Your task to perform on an android device: uninstall "Fetch Rewards" Image 0: 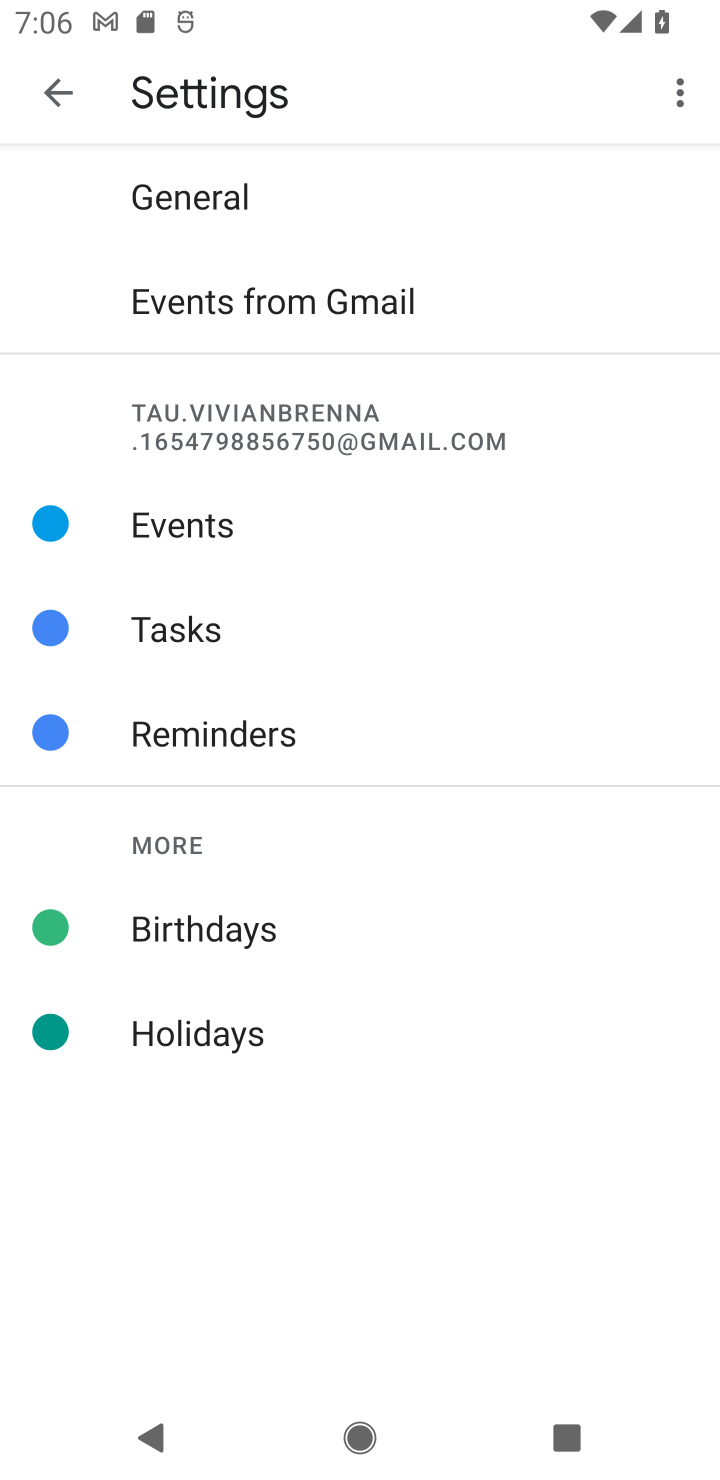
Step 0: press home button
Your task to perform on an android device: uninstall "Fetch Rewards" Image 1: 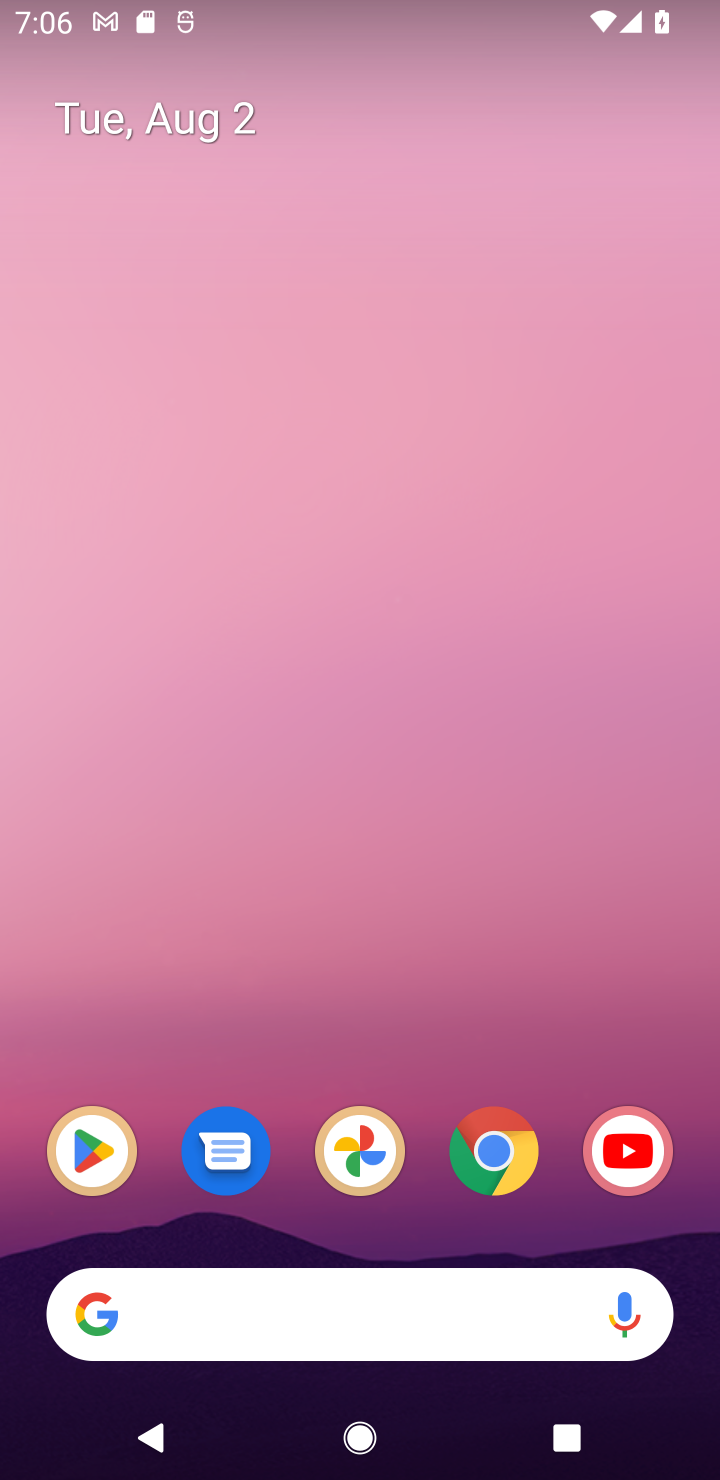
Step 1: click (96, 1150)
Your task to perform on an android device: uninstall "Fetch Rewards" Image 2: 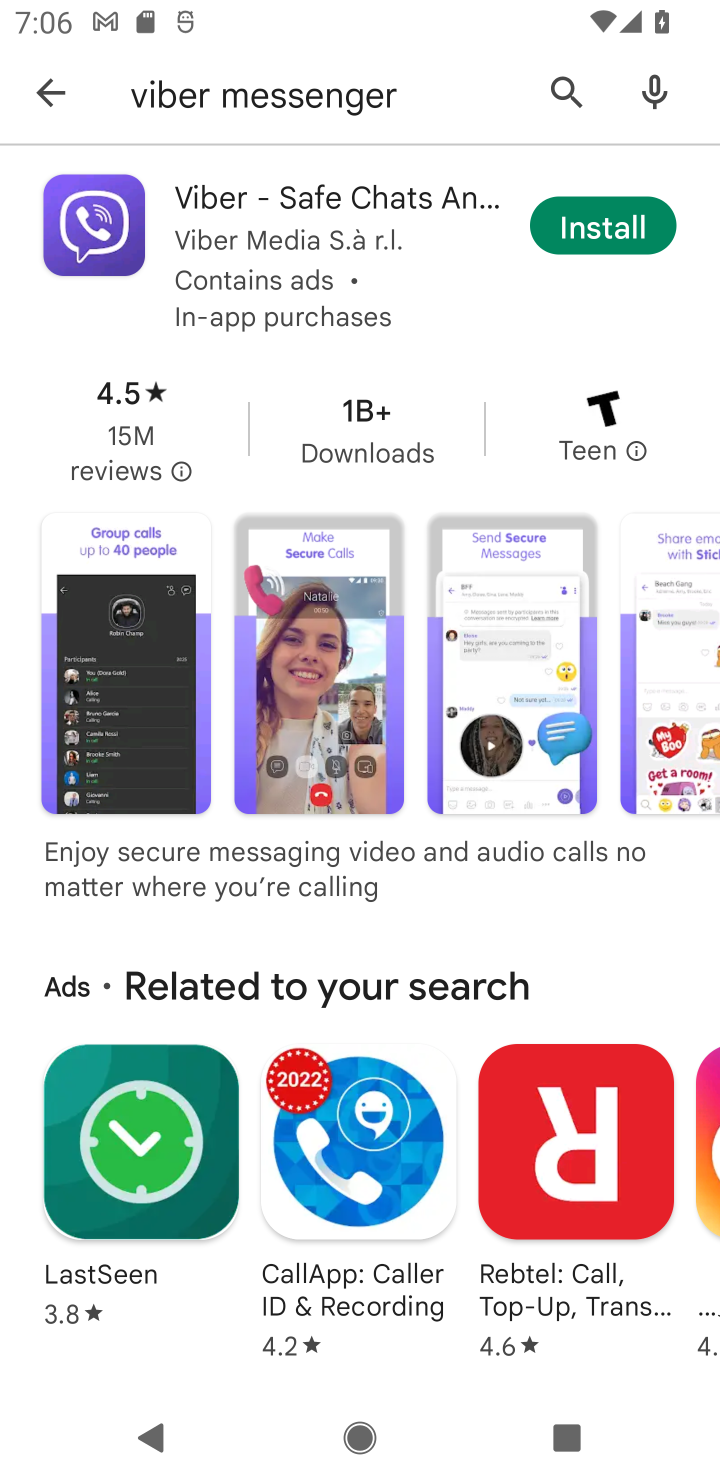
Step 2: click (572, 99)
Your task to perform on an android device: uninstall "Fetch Rewards" Image 3: 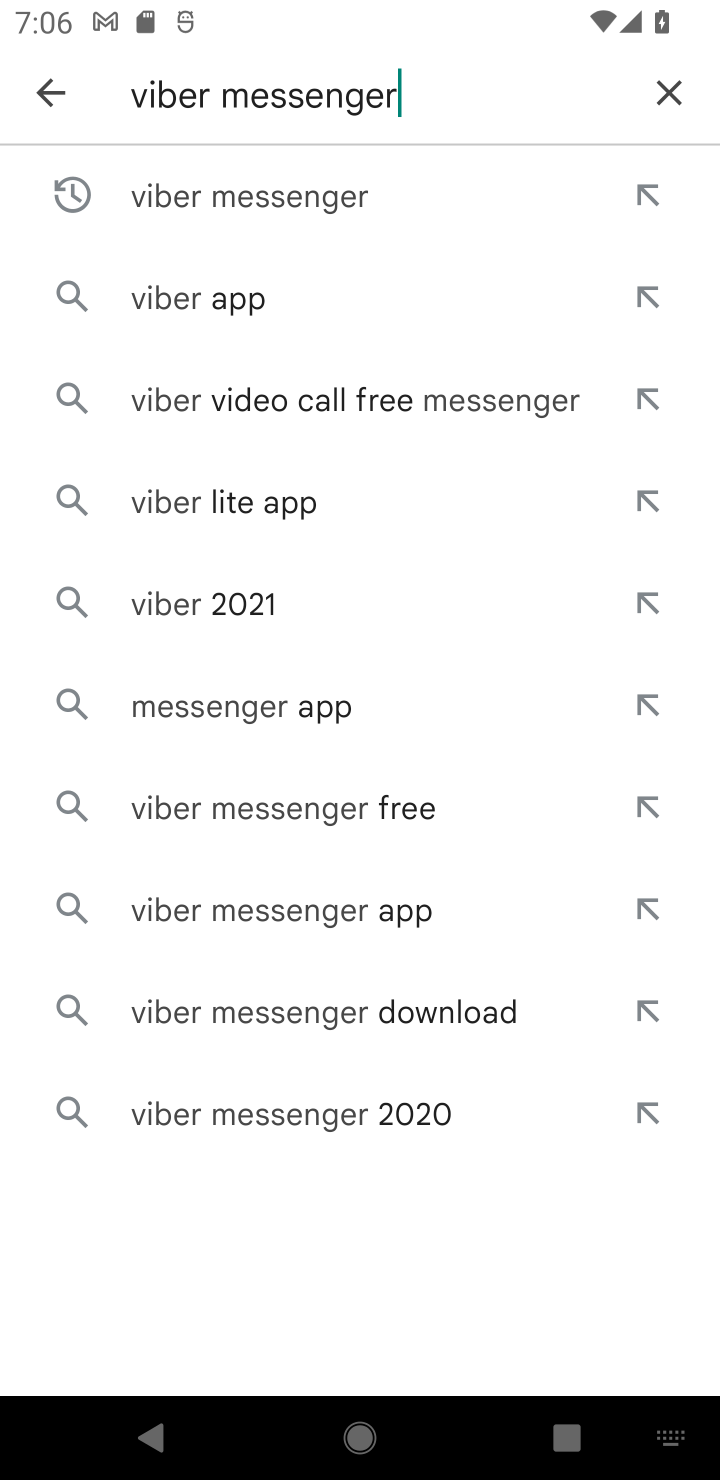
Step 3: click (654, 93)
Your task to perform on an android device: uninstall "Fetch Rewards" Image 4: 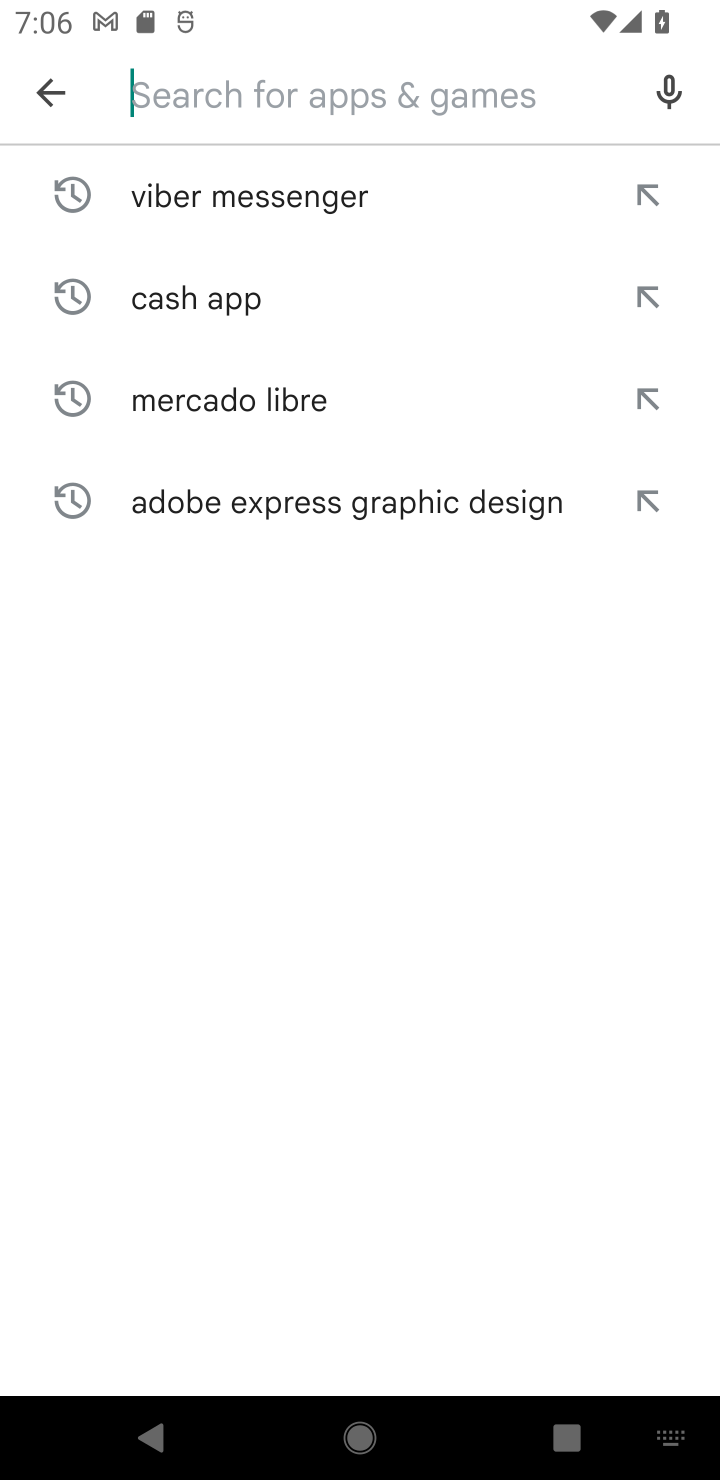
Step 4: type "Fetch Rewards"
Your task to perform on an android device: uninstall "Fetch Rewards" Image 5: 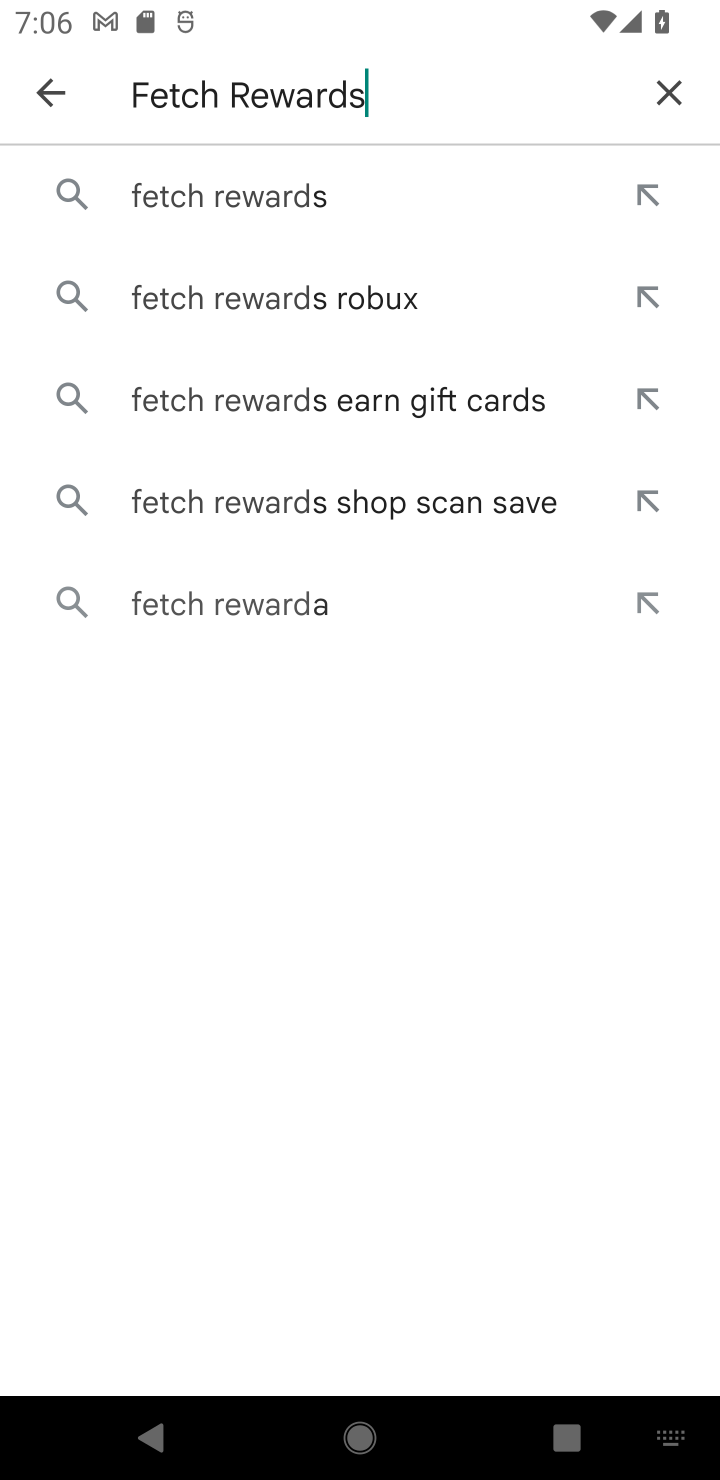
Step 5: type ""
Your task to perform on an android device: uninstall "Fetch Rewards" Image 6: 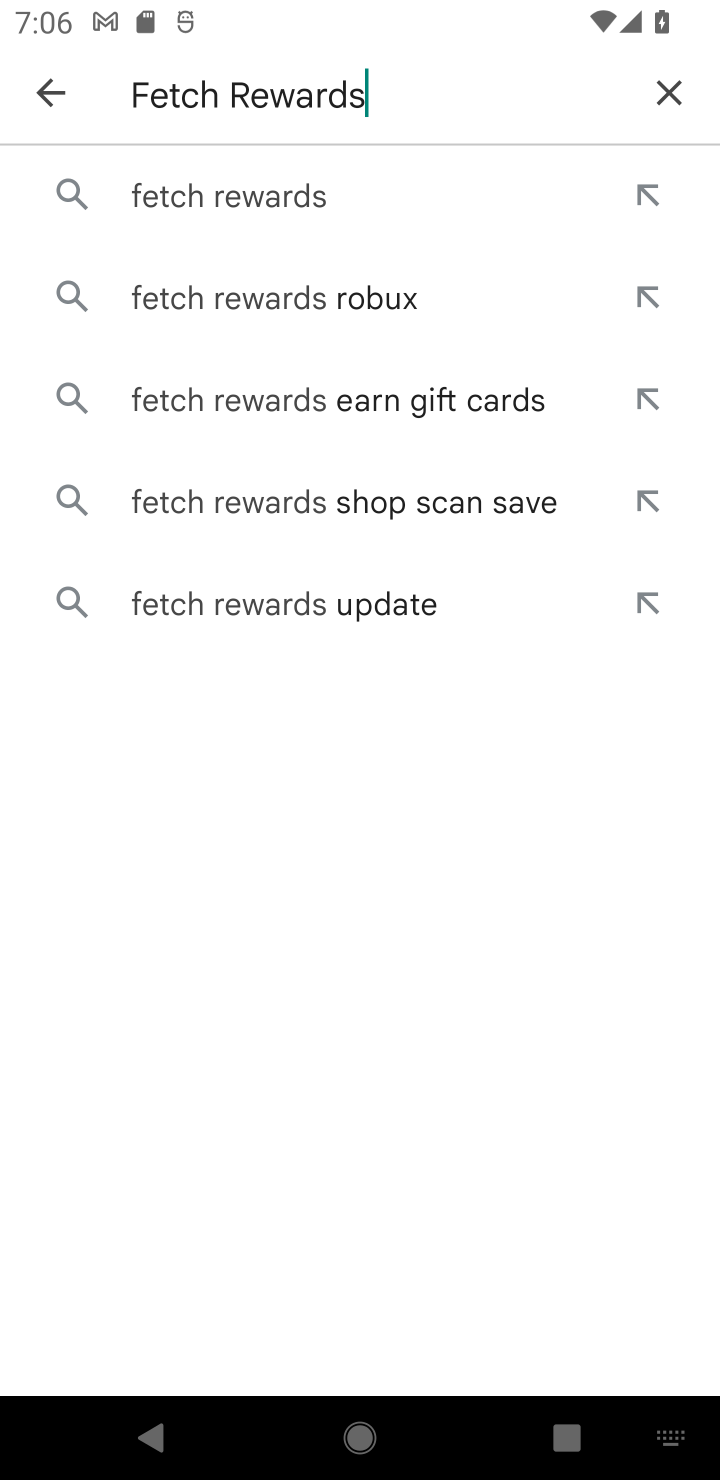
Step 6: click (323, 203)
Your task to perform on an android device: uninstall "Fetch Rewards" Image 7: 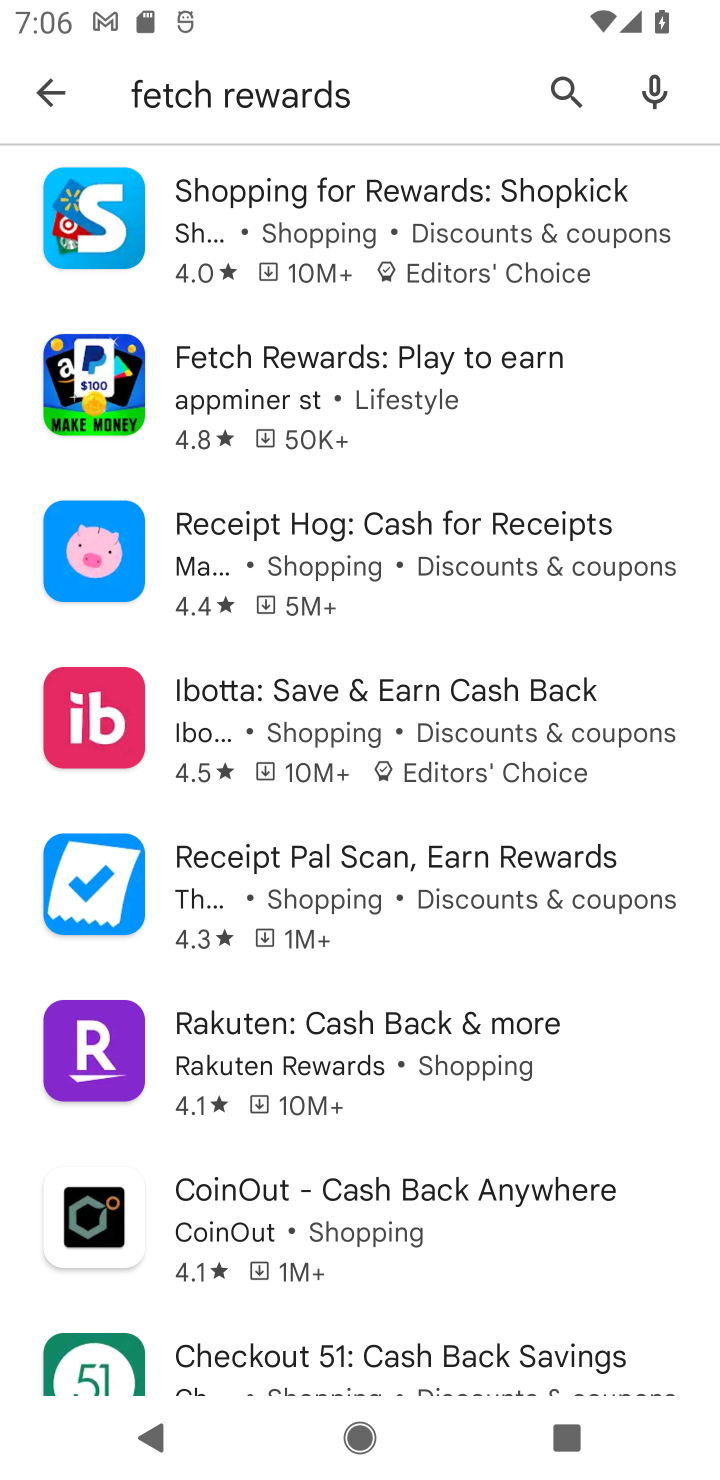
Step 7: task complete